Your task to perform on an android device: Check the settings for the Google Play Movies app Image 0: 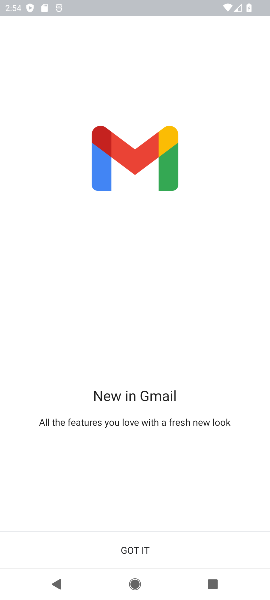
Step 0: press home button
Your task to perform on an android device: Check the settings for the Google Play Movies app Image 1: 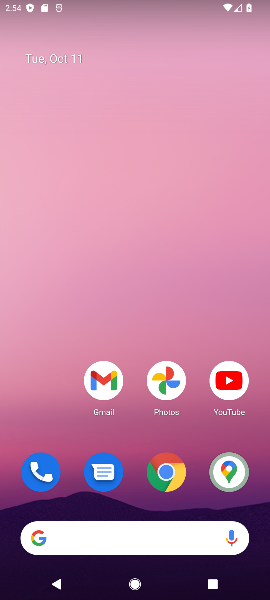
Step 1: drag from (126, 502) to (101, 83)
Your task to perform on an android device: Check the settings for the Google Play Movies app Image 2: 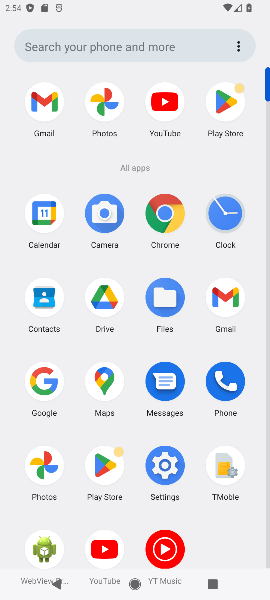
Step 2: click (113, 460)
Your task to perform on an android device: Check the settings for the Google Play Movies app Image 3: 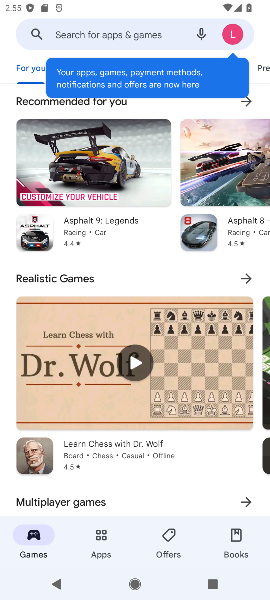
Step 3: press home button
Your task to perform on an android device: Check the settings for the Google Play Movies app Image 4: 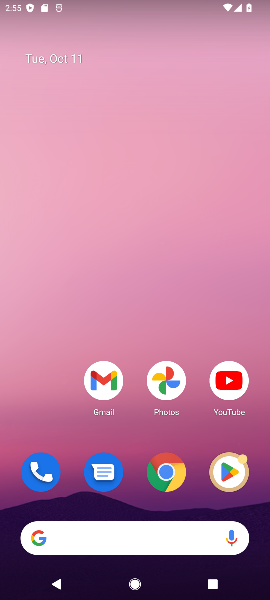
Step 4: click (259, 109)
Your task to perform on an android device: Check the settings for the Google Play Movies app Image 5: 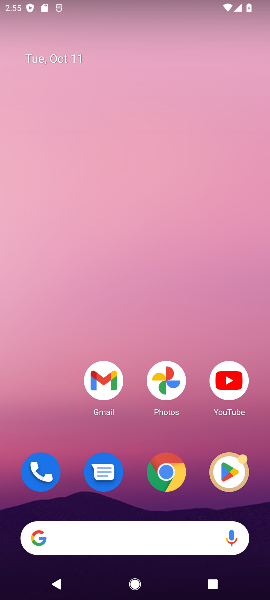
Step 5: drag from (129, 504) to (186, 60)
Your task to perform on an android device: Check the settings for the Google Play Movies app Image 6: 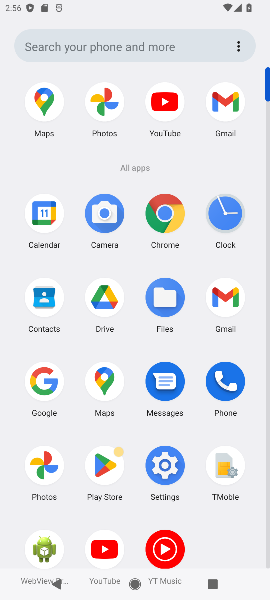
Step 6: click (89, 473)
Your task to perform on an android device: Check the settings for the Google Play Movies app Image 7: 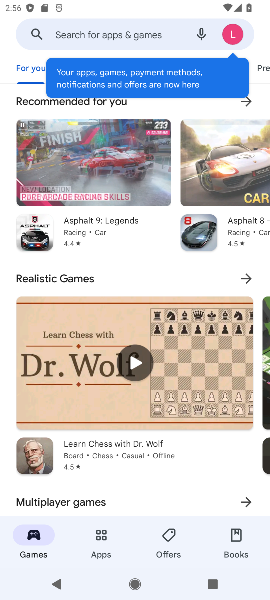
Step 7: click (87, 28)
Your task to perform on an android device: Check the settings for the Google Play Movies app Image 8: 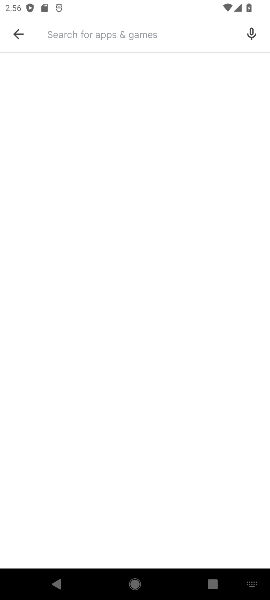
Step 8: type "Google Play Movies app"
Your task to perform on an android device: Check the settings for the Google Play Movies app Image 9: 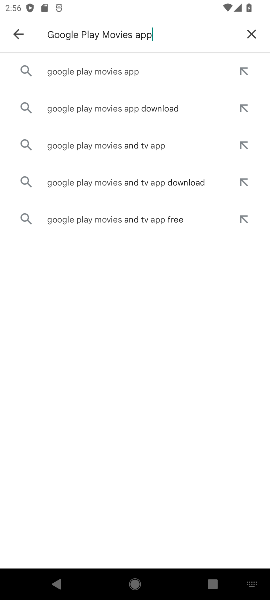
Step 9: click (131, 70)
Your task to perform on an android device: Check the settings for the Google Play Movies app Image 10: 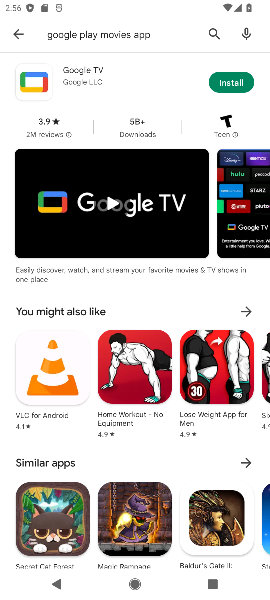
Step 10: task complete